Your task to perform on an android device: Go to Maps Image 0: 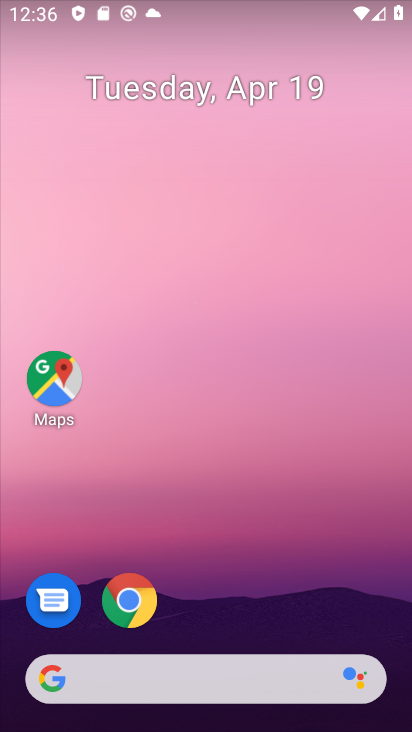
Step 0: click (58, 391)
Your task to perform on an android device: Go to Maps Image 1: 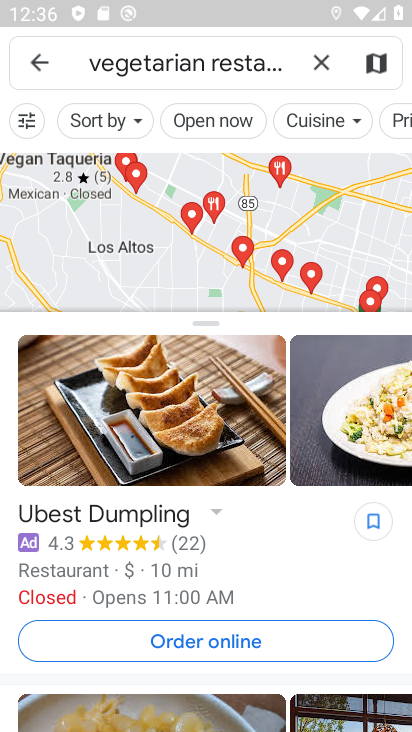
Step 1: task complete